Your task to perform on an android device: Open internet settings Image 0: 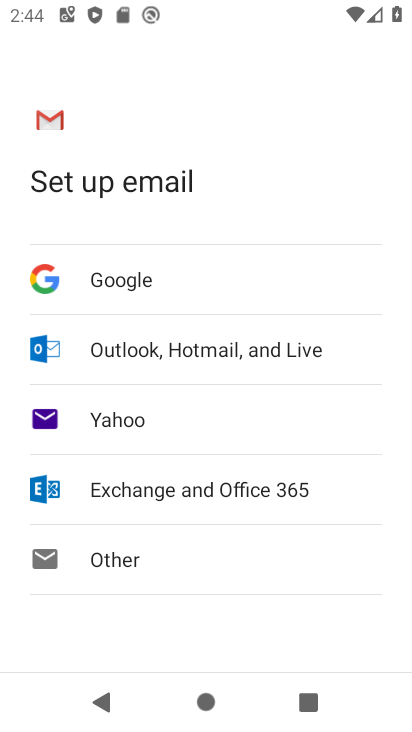
Step 0: press home button
Your task to perform on an android device: Open internet settings Image 1: 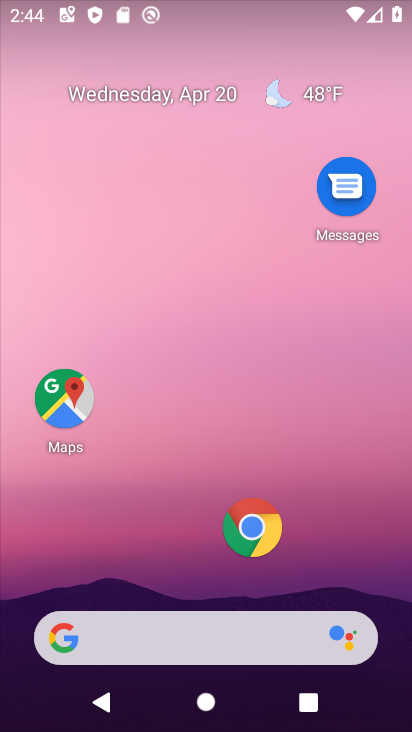
Step 1: drag from (215, 633) to (298, 77)
Your task to perform on an android device: Open internet settings Image 2: 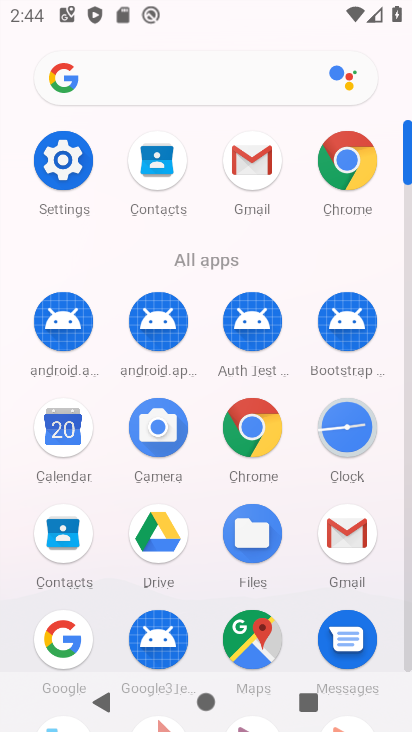
Step 2: click (76, 162)
Your task to perform on an android device: Open internet settings Image 3: 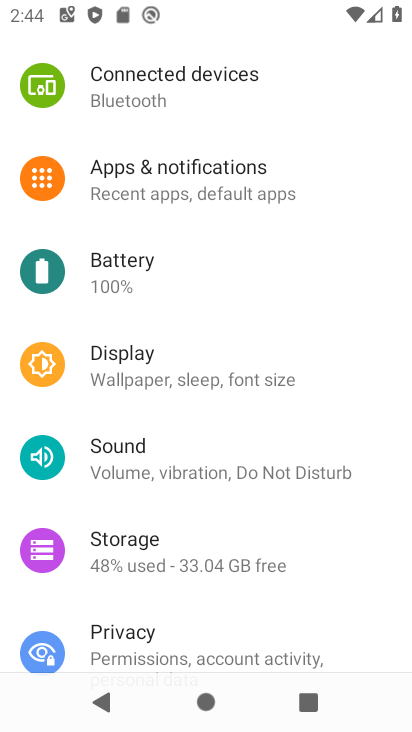
Step 3: drag from (314, 139) to (249, 519)
Your task to perform on an android device: Open internet settings Image 4: 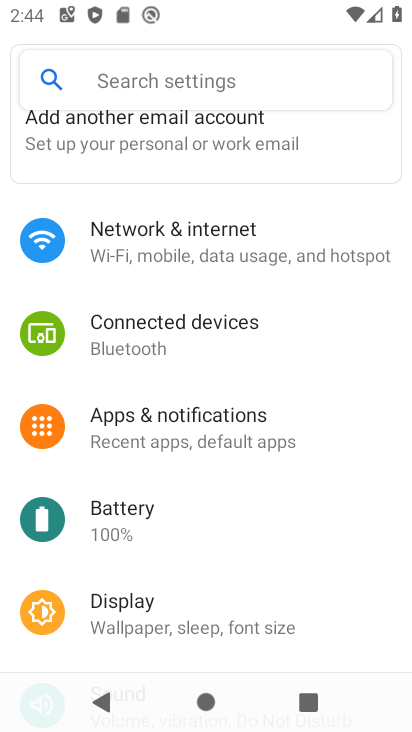
Step 4: click (171, 261)
Your task to perform on an android device: Open internet settings Image 5: 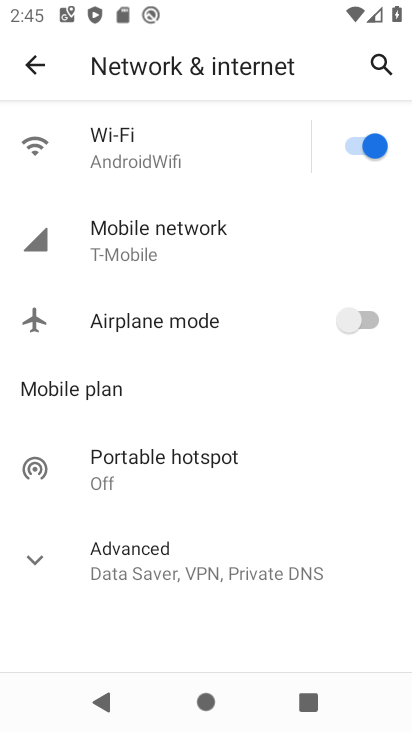
Step 5: task complete